Your task to perform on an android device: Do I have any events today? Image 0: 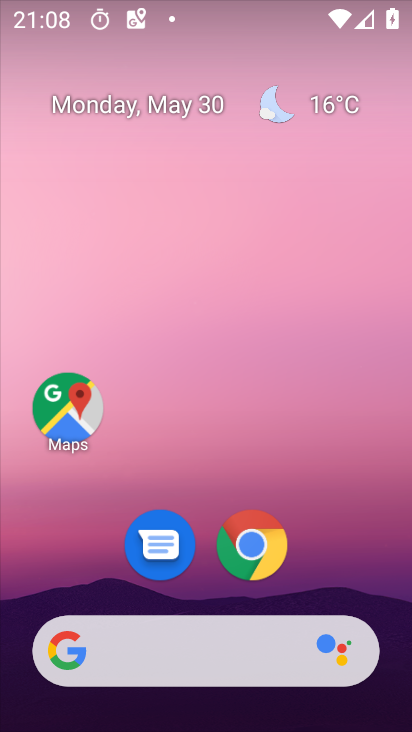
Step 0: click (122, 105)
Your task to perform on an android device: Do I have any events today? Image 1: 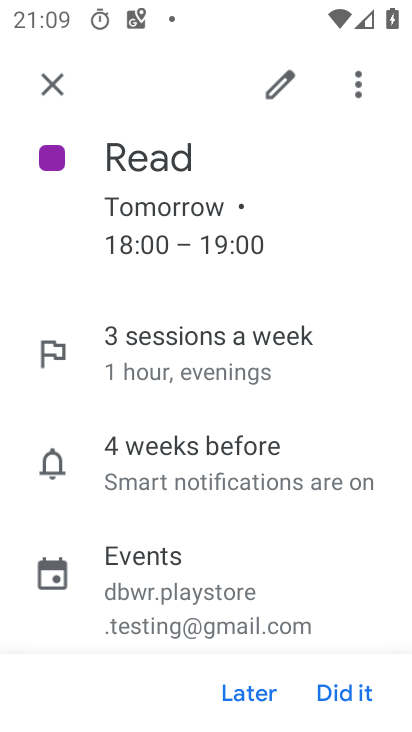
Step 1: task complete